Your task to perform on an android device: Do I have any events tomorrow? Image 0: 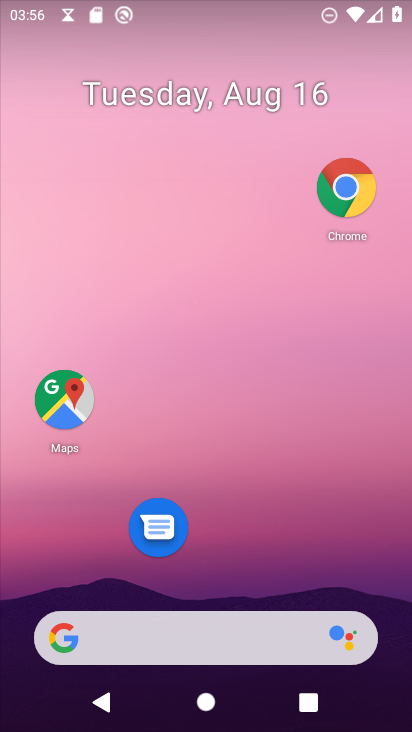
Step 0: press home button
Your task to perform on an android device: Do I have any events tomorrow? Image 1: 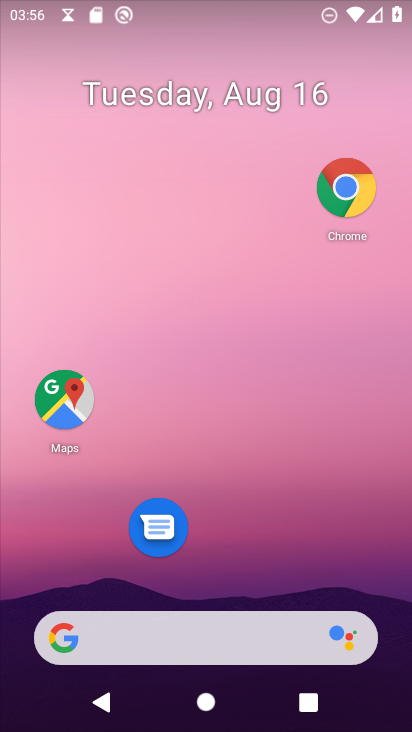
Step 1: drag from (221, 588) to (220, 56)
Your task to perform on an android device: Do I have any events tomorrow? Image 2: 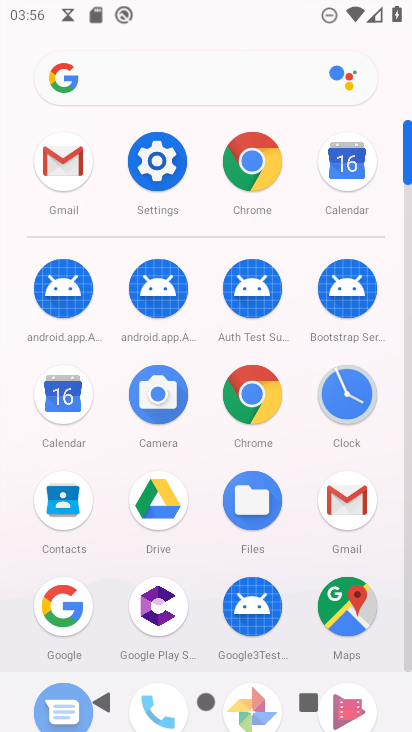
Step 2: click (61, 394)
Your task to perform on an android device: Do I have any events tomorrow? Image 3: 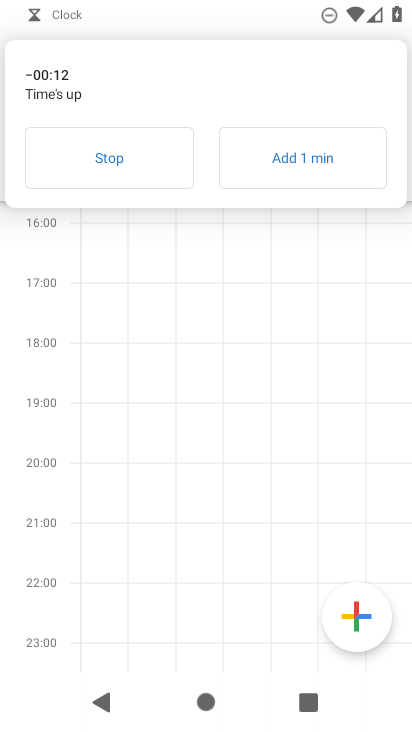
Step 3: click (112, 166)
Your task to perform on an android device: Do I have any events tomorrow? Image 4: 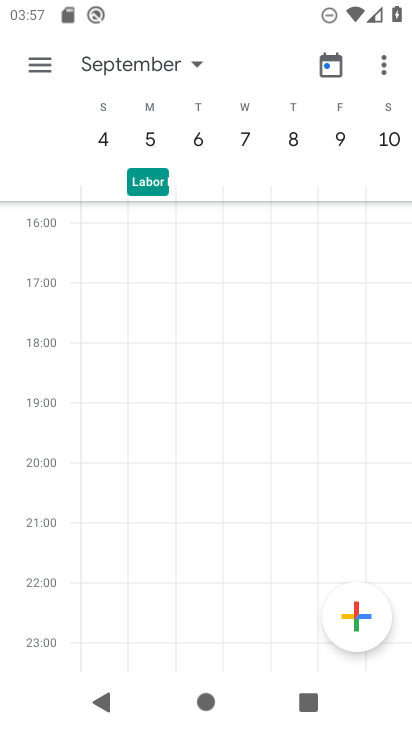
Step 4: drag from (98, 137) to (407, 154)
Your task to perform on an android device: Do I have any events tomorrow? Image 5: 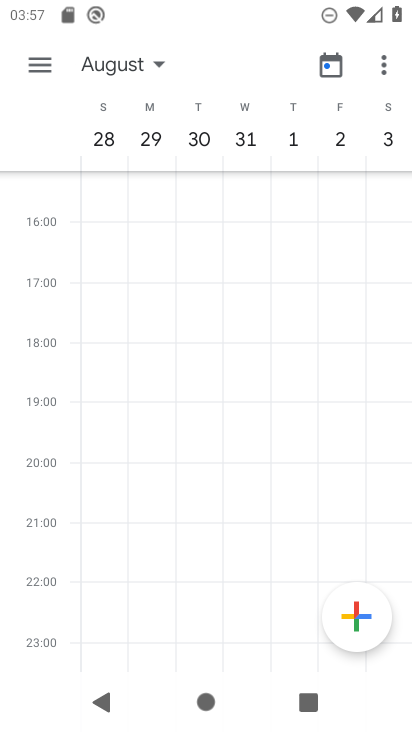
Step 5: drag from (92, 134) to (398, 140)
Your task to perform on an android device: Do I have any events tomorrow? Image 6: 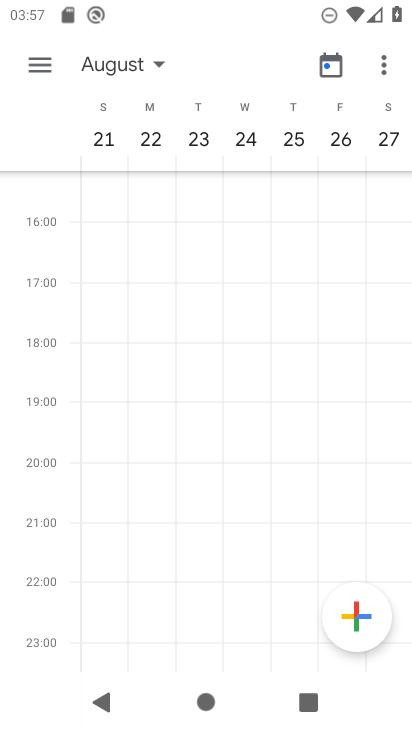
Step 6: drag from (99, 141) to (377, 144)
Your task to perform on an android device: Do I have any events tomorrow? Image 7: 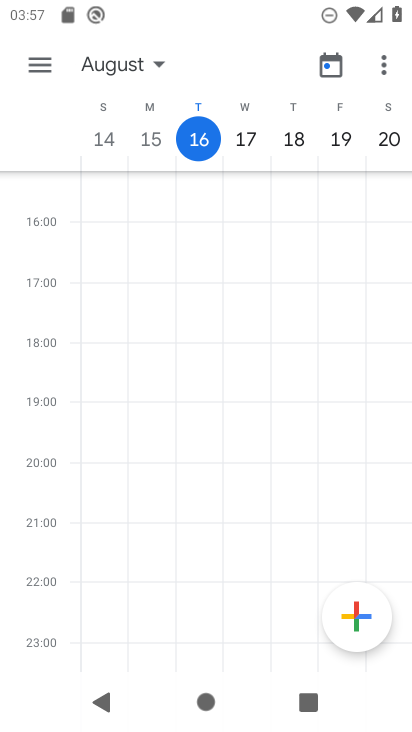
Step 7: click (243, 129)
Your task to perform on an android device: Do I have any events tomorrow? Image 8: 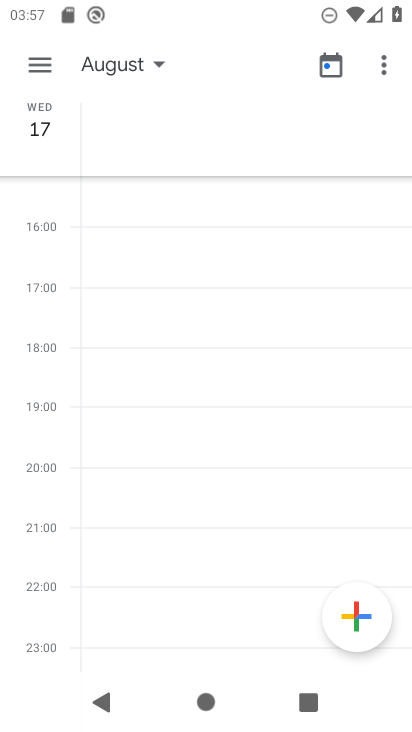
Step 8: task complete